Your task to perform on an android device: make emails show in primary in the gmail app Image 0: 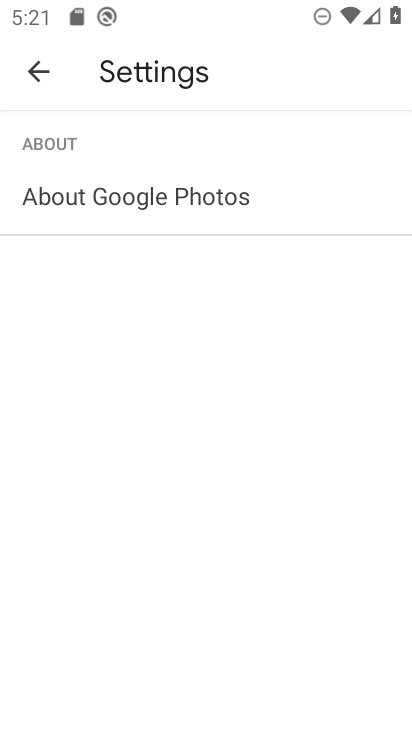
Step 0: press home button
Your task to perform on an android device: make emails show in primary in the gmail app Image 1: 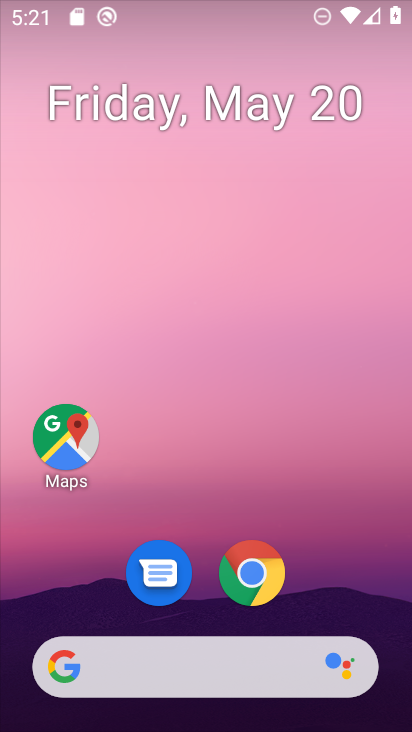
Step 1: drag from (339, 575) to (253, 5)
Your task to perform on an android device: make emails show in primary in the gmail app Image 2: 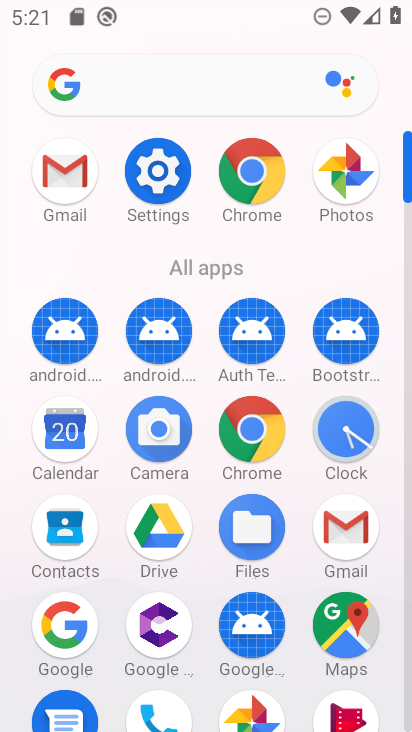
Step 2: click (360, 517)
Your task to perform on an android device: make emails show in primary in the gmail app Image 3: 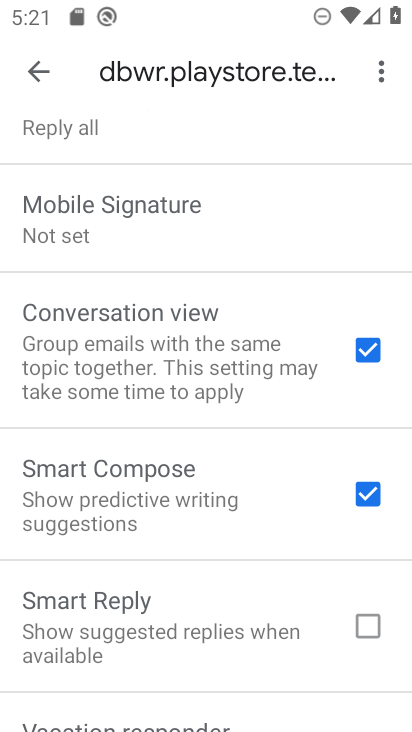
Step 3: click (35, 73)
Your task to perform on an android device: make emails show in primary in the gmail app Image 4: 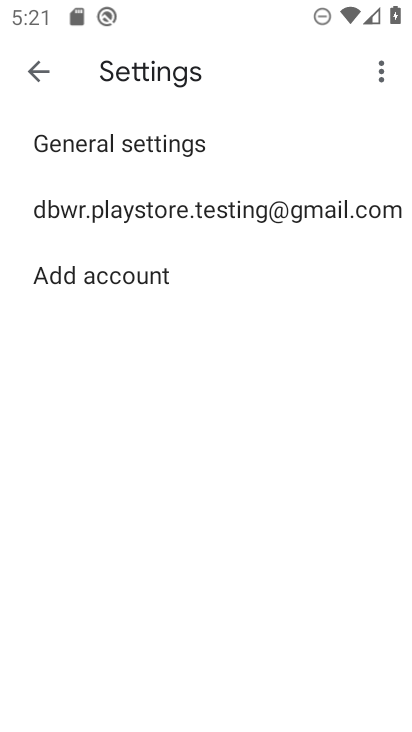
Step 4: click (40, 80)
Your task to perform on an android device: make emails show in primary in the gmail app Image 5: 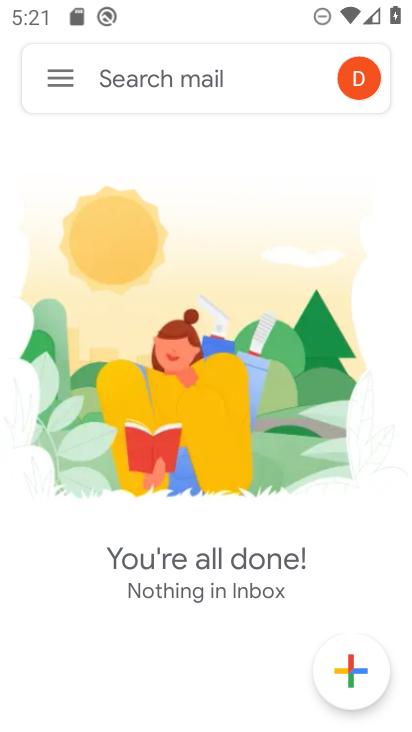
Step 5: click (53, 66)
Your task to perform on an android device: make emails show in primary in the gmail app Image 6: 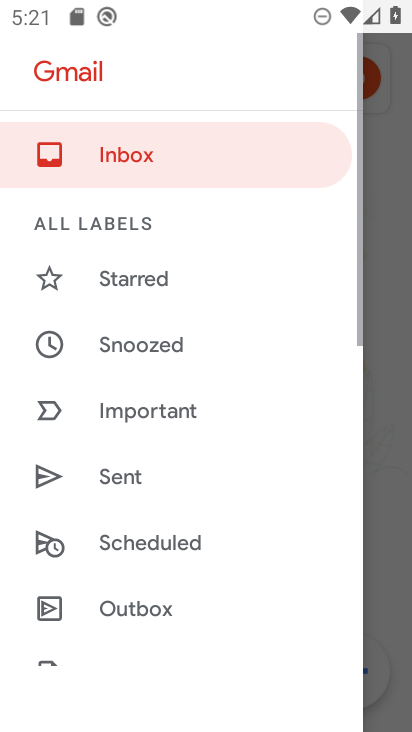
Step 6: task complete